Your task to perform on an android device: toggle translation in the chrome app Image 0: 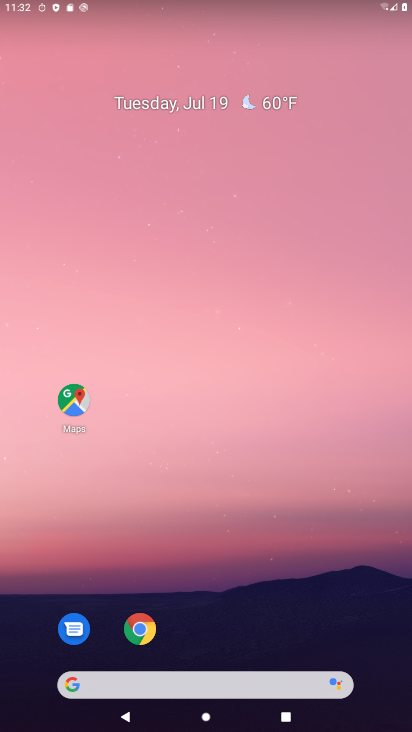
Step 0: click (130, 635)
Your task to perform on an android device: toggle translation in the chrome app Image 1: 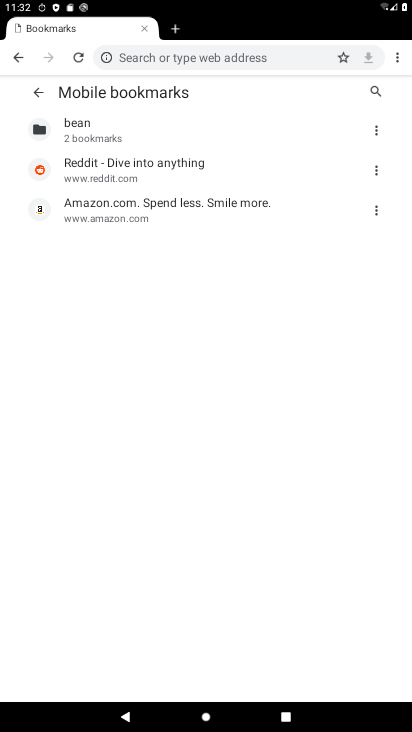
Step 1: click (404, 55)
Your task to perform on an android device: toggle translation in the chrome app Image 2: 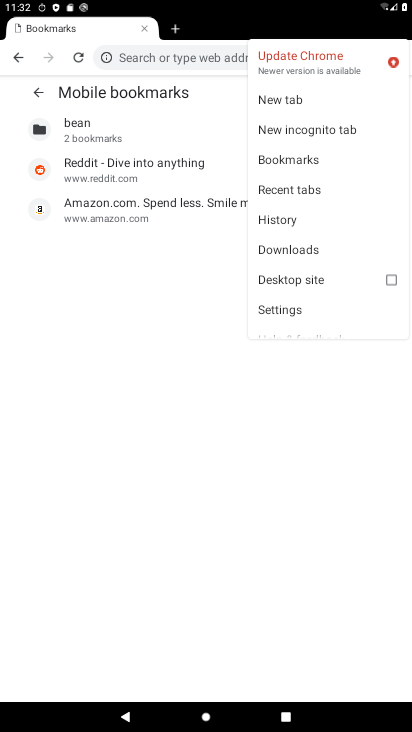
Step 2: click (314, 310)
Your task to perform on an android device: toggle translation in the chrome app Image 3: 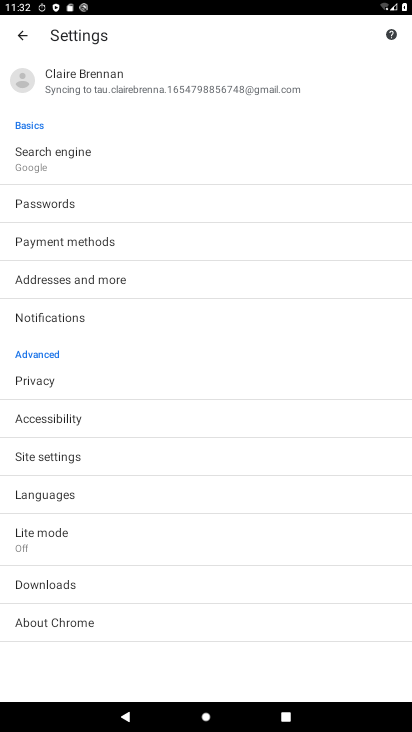
Step 3: click (113, 495)
Your task to perform on an android device: toggle translation in the chrome app Image 4: 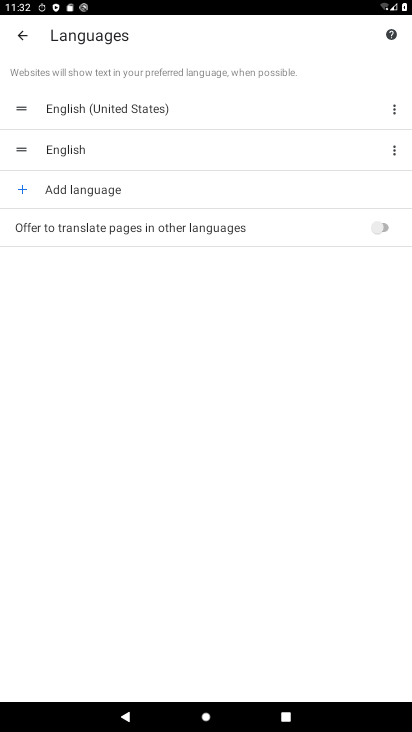
Step 4: click (390, 230)
Your task to perform on an android device: toggle translation in the chrome app Image 5: 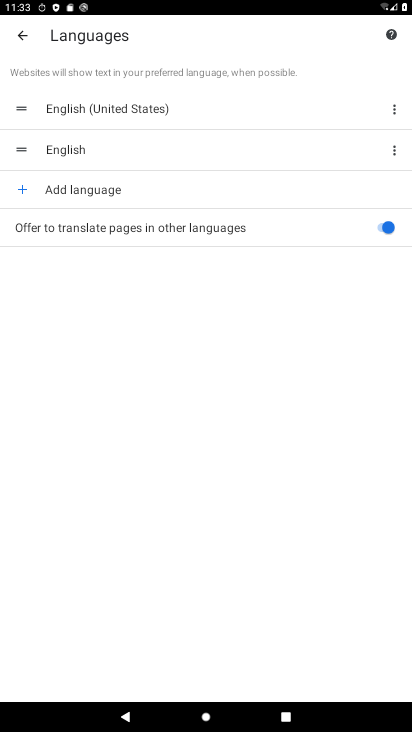
Step 5: task complete